Your task to perform on an android device: What's on my calendar today? Image 0: 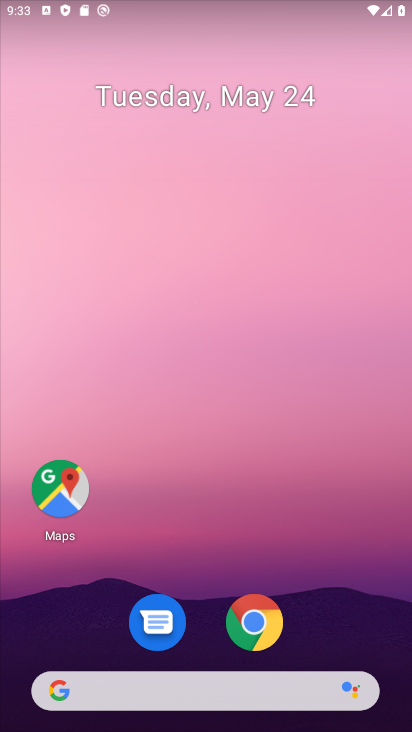
Step 0: drag from (202, 713) to (355, 67)
Your task to perform on an android device: What's on my calendar today? Image 1: 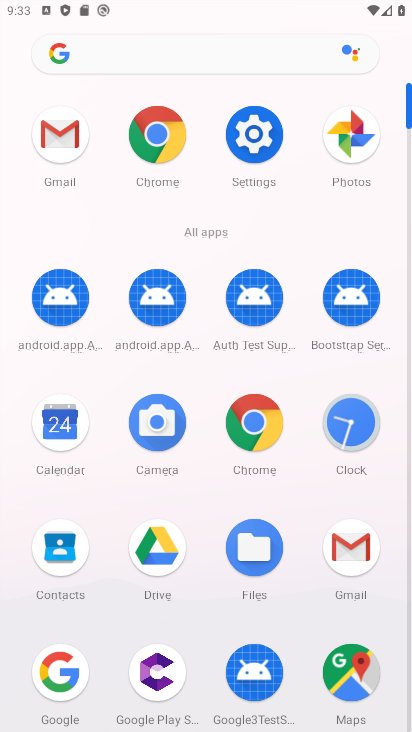
Step 1: click (57, 427)
Your task to perform on an android device: What's on my calendar today? Image 2: 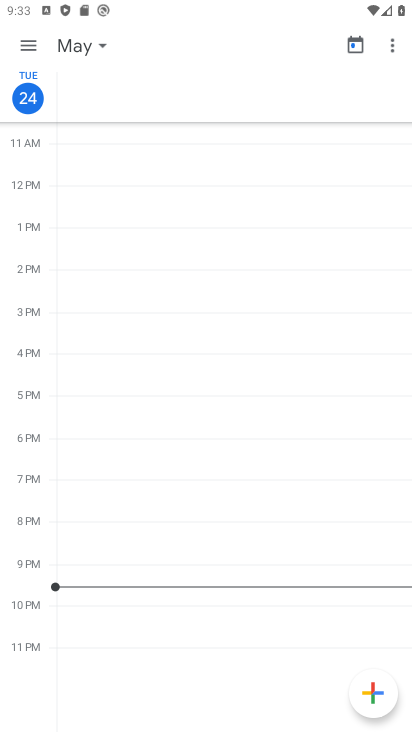
Step 2: click (27, 49)
Your task to perform on an android device: What's on my calendar today? Image 3: 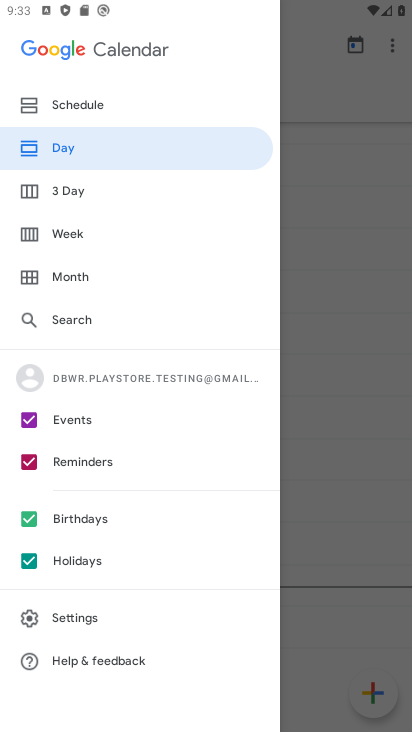
Step 3: click (60, 99)
Your task to perform on an android device: What's on my calendar today? Image 4: 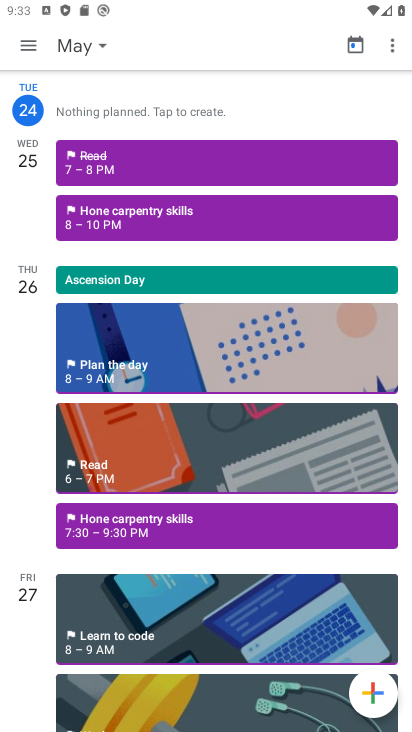
Step 4: task complete